Your task to perform on an android device: Show me popular videos on Youtube Image 0: 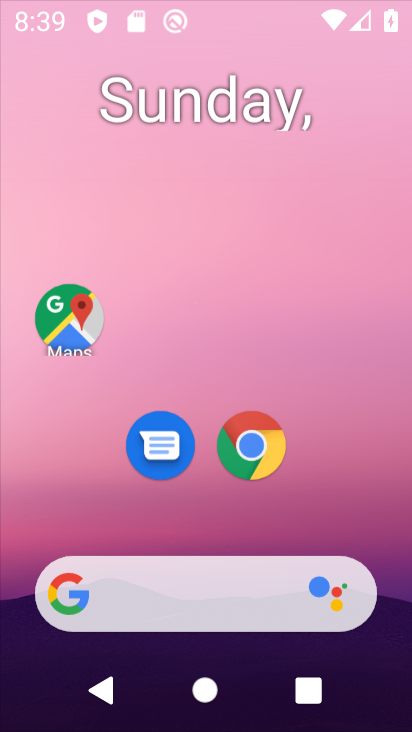
Step 0: click (390, 117)
Your task to perform on an android device: Show me popular videos on Youtube Image 1: 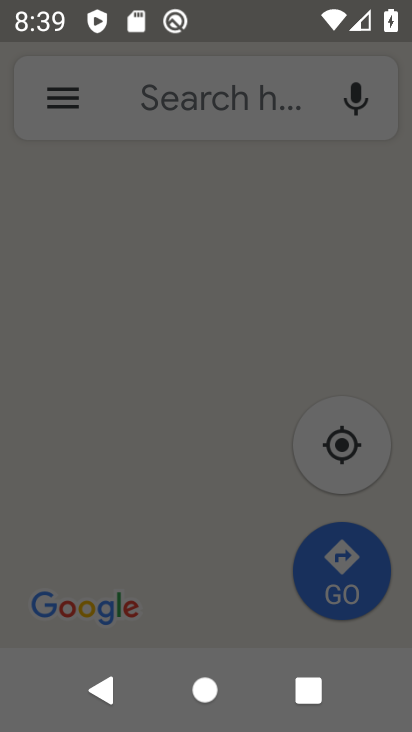
Step 1: press home button
Your task to perform on an android device: Show me popular videos on Youtube Image 2: 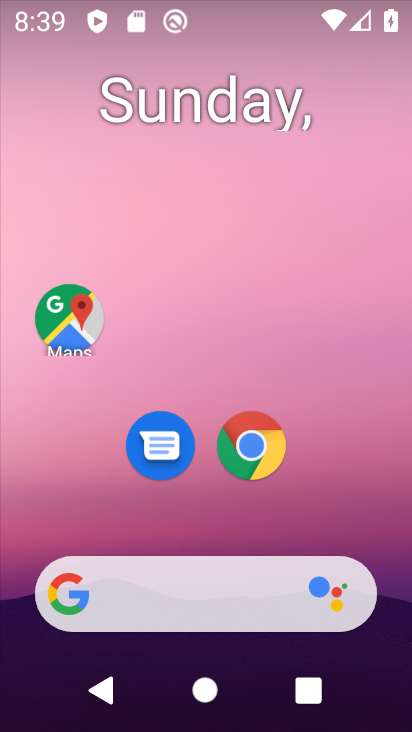
Step 2: drag from (355, 493) to (330, 148)
Your task to perform on an android device: Show me popular videos on Youtube Image 3: 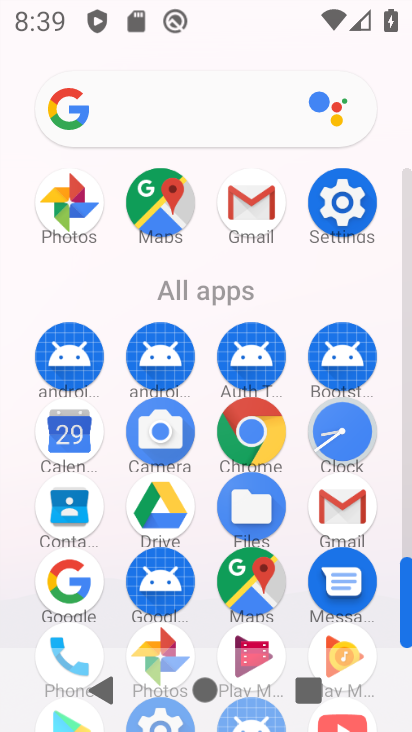
Step 3: drag from (299, 612) to (307, 260)
Your task to perform on an android device: Show me popular videos on Youtube Image 4: 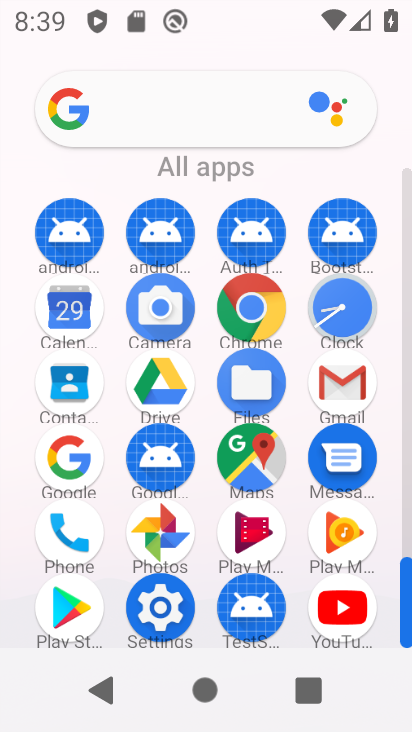
Step 4: click (341, 604)
Your task to perform on an android device: Show me popular videos on Youtube Image 5: 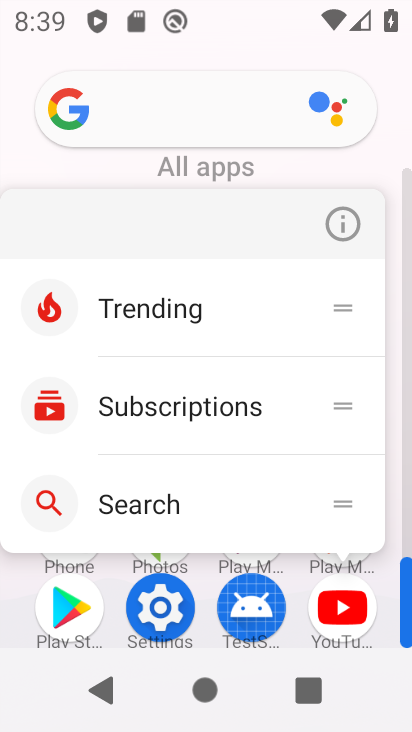
Step 5: click (349, 609)
Your task to perform on an android device: Show me popular videos on Youtube Image 6: 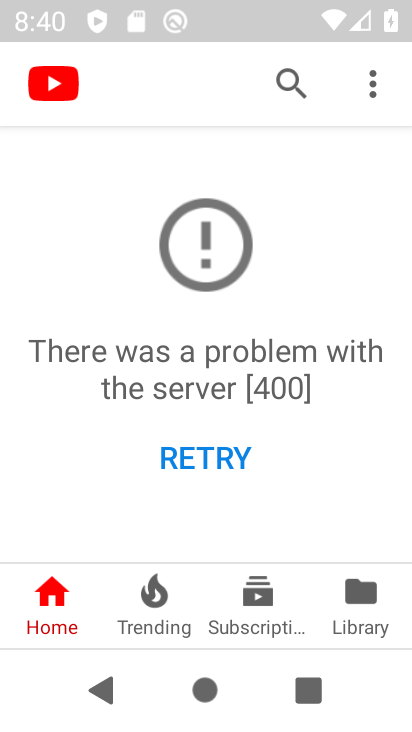
Step 6: click (248, 452)
Your task to perform on an android device: Show me popular videos on Youtube Image 7: 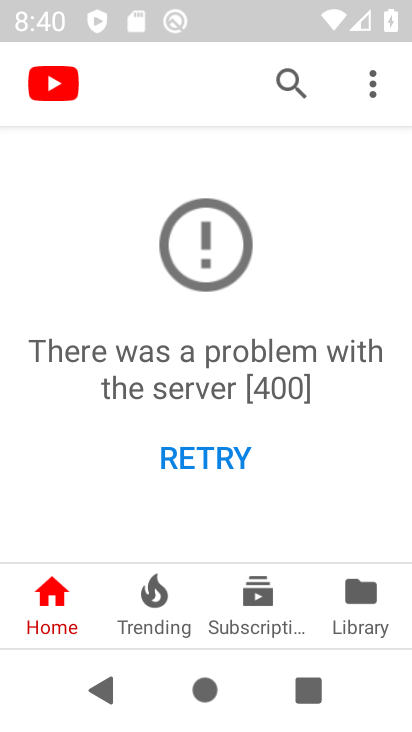
Step 7: click (241, 459)
Your task to perform on an android device: Show me popular videos on Youtube Image 8: 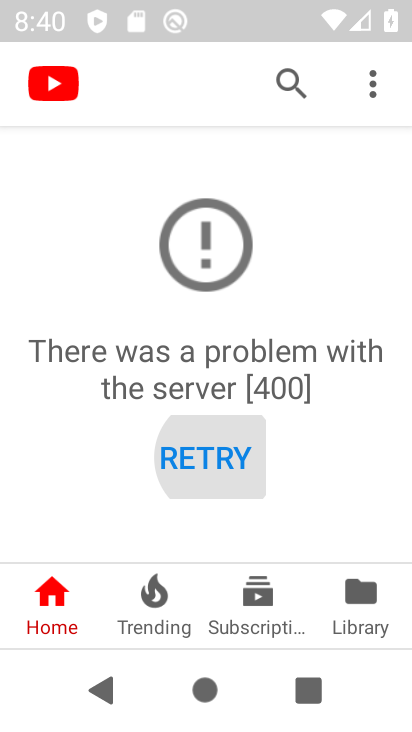
Step 8: click (242, 459)
Your task to perform on an android device: Show me popular videos on Youtube Image 9: 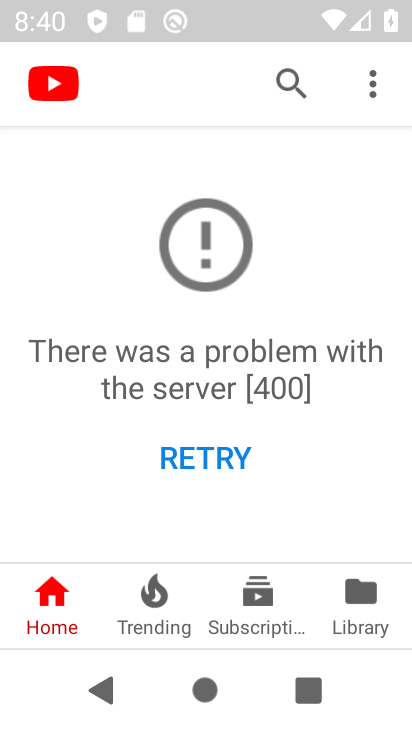
Step 9: click (362, 593)
Your task to perform on an android device: Show me popular videos on Youtube Image 10: 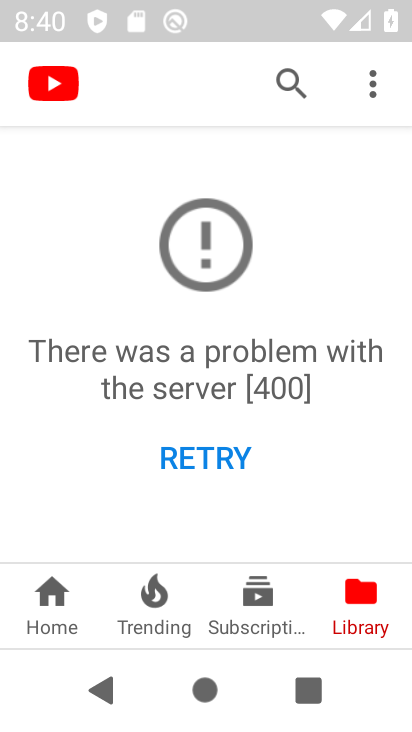
Step 10: task complete